Your task to perform on an android device: Open CNN.com Image 0: 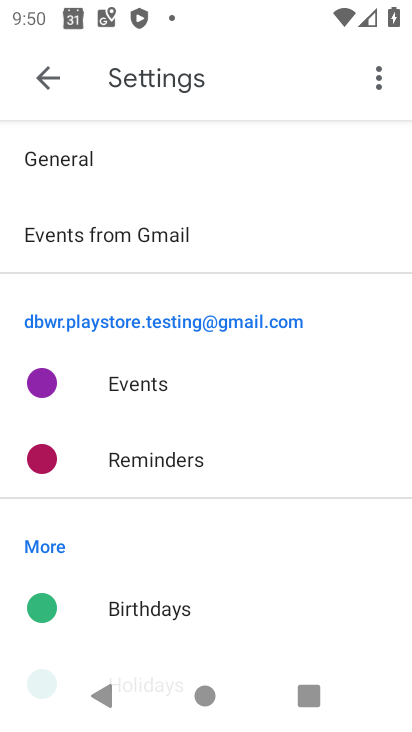
Step 0: press home button
Your task to perform on an android device: Open CNN.com Image 1: 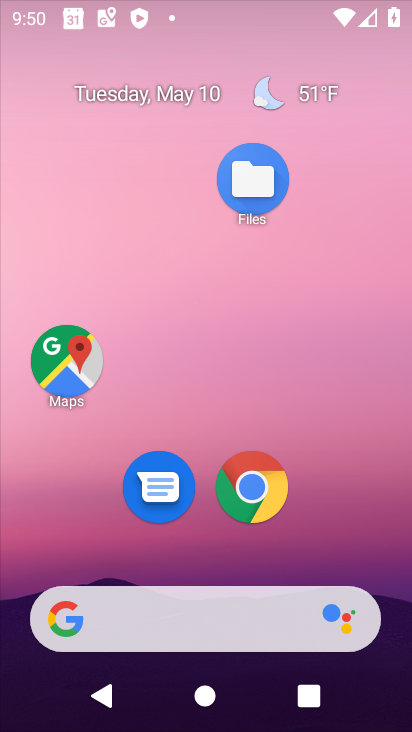
Step 1: drag from (199, 545) to (137, 59)
Your task to perform on an android device: Open CNN.com Image 2: 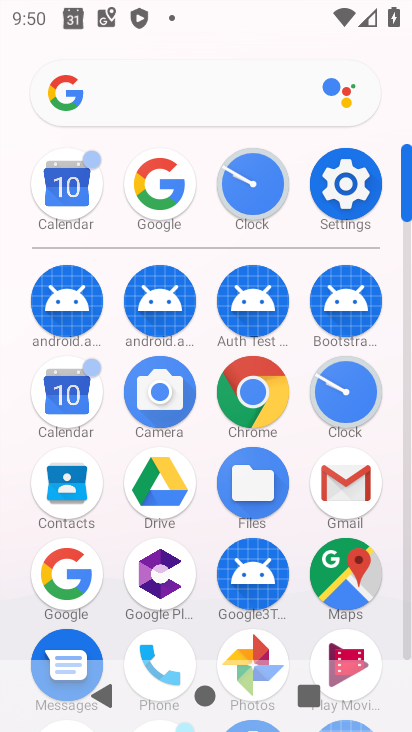
Step 2: click (67, 562)
Your task to perform on an android device: Open CNN.com Image 3: 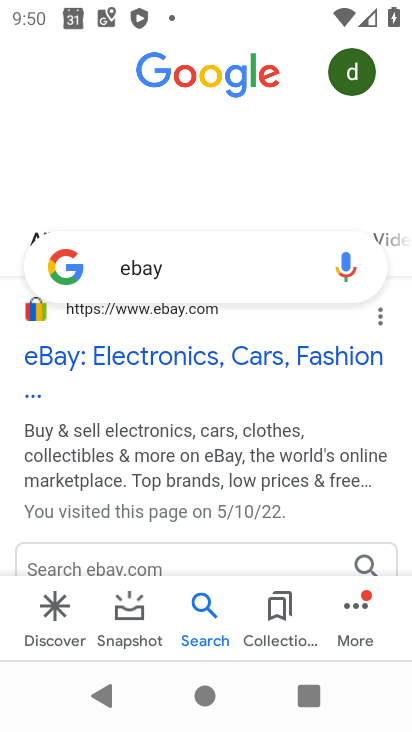
Step 3: click (186, 273)
Your task to perform on an android device: Open CNN.com Image 4: 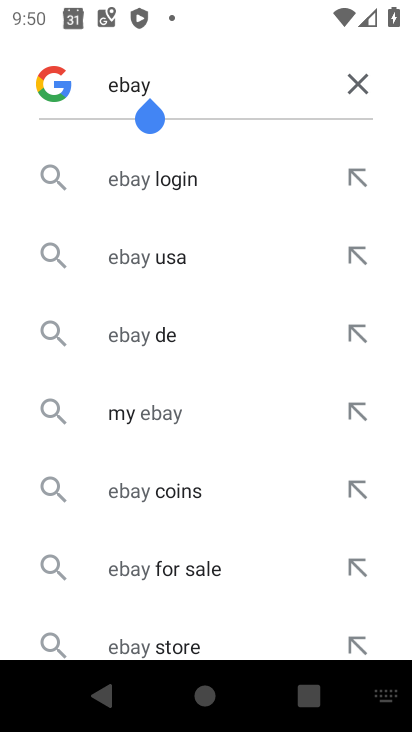
Step 4: click (362, 79)
Your task to perform on an android device: Open CNN.com Image 5: 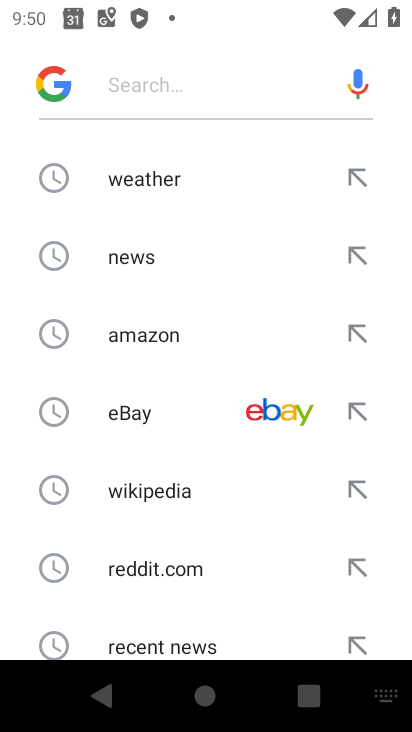
Step 5: drag from (185, 548) to (198, 100)
Your task to perform on an android device: Open CNN.com Image 6: 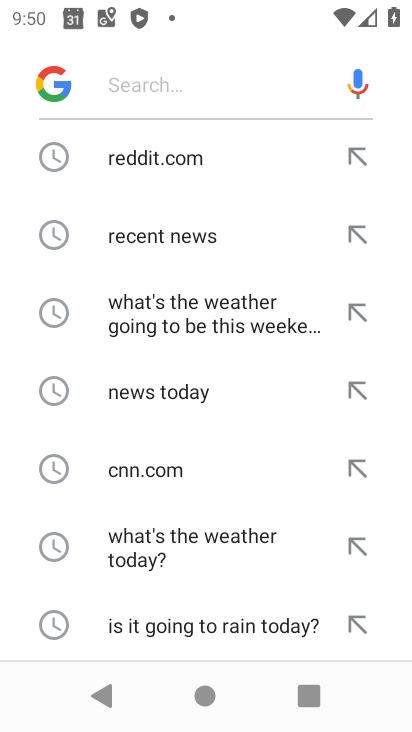
Step 6: click (138, 490)
Your task to perform on an android device: Open CNN.com Image 7: 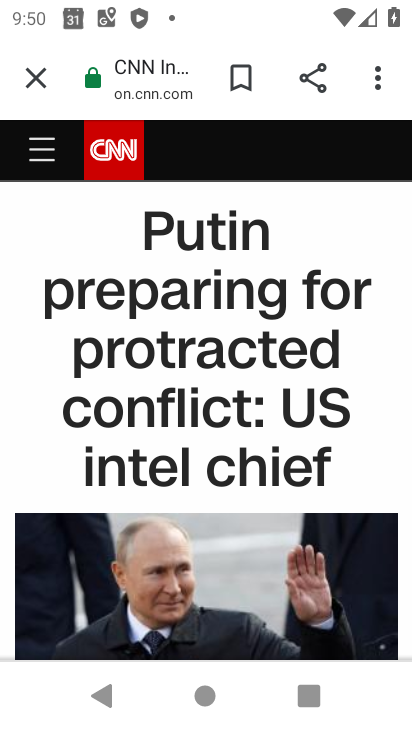
Step 7: task complete